Your task to perform on an android device: check google app version Image 0: 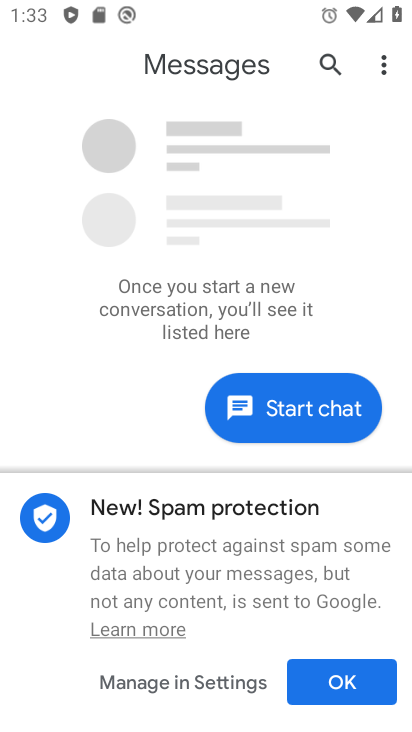
Step 0: click (315, 685)
Your task to perform on an android device: check google app version Image 1: 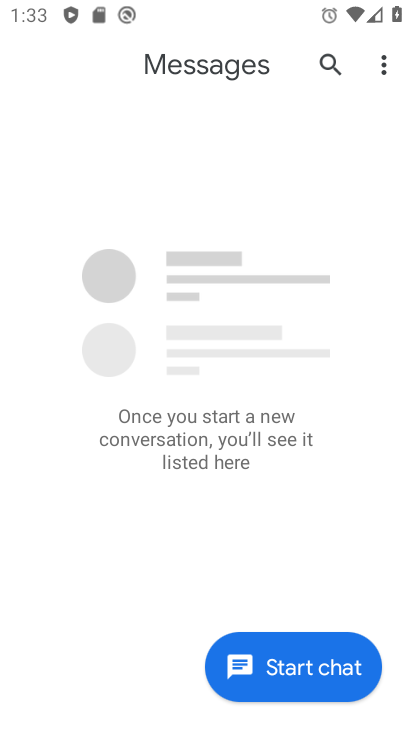
Step 1: press home button
Your task to perform on an android device: check google app version Image 2: 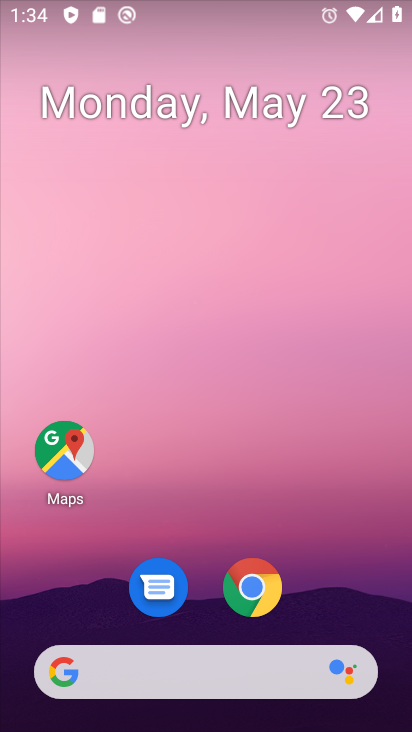
Step 2: drag from (347, 579) to (354, 176)
Your task to perform on an android device: check google app version Image 3: 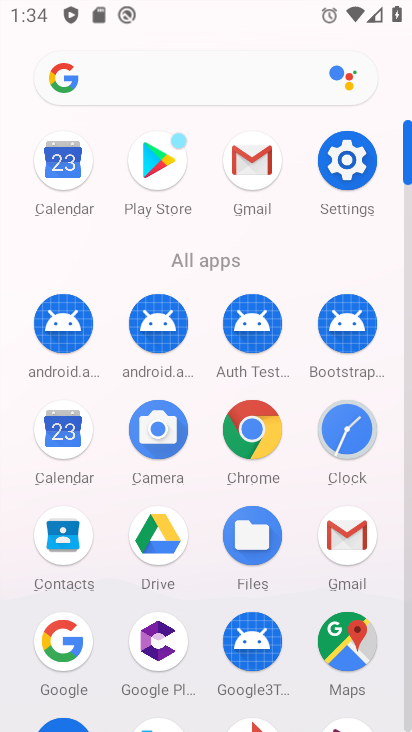
Step 3: click (264, 437)
Your task to perform on an android device: check google app version Image 4: 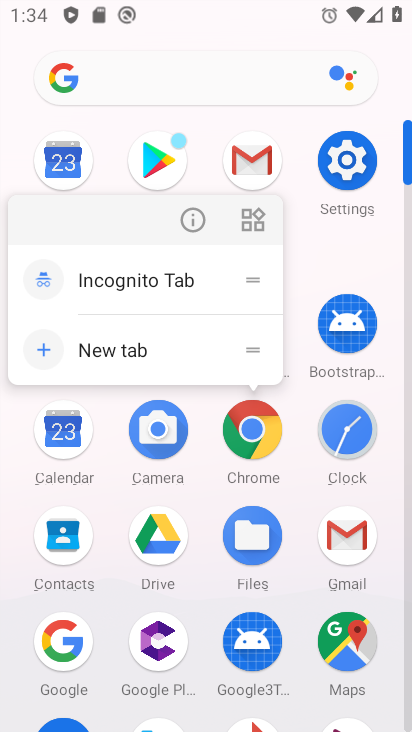
Step 4: click (202, 227)
Your task to perform on an android device: check google app version Image 5: 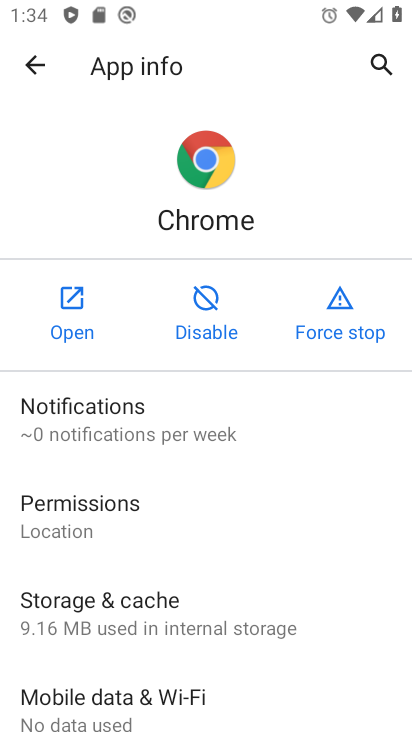
Step 5: task complete